Your task to perform on an android device: Go to CNN.com Image 0: 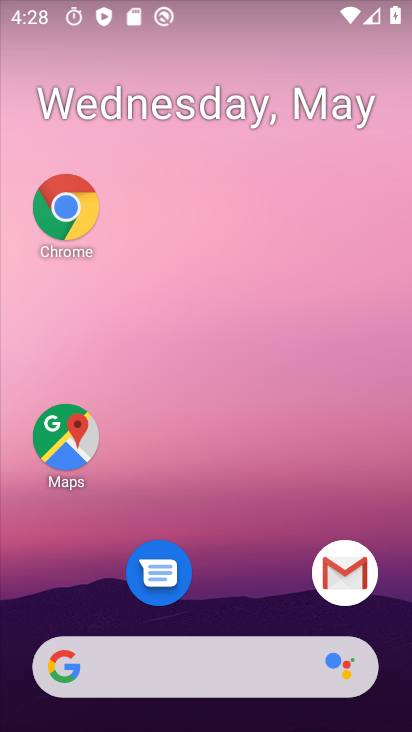
Step 0: drag from (214, 29) to (212, 162)
Your task to perform on an android device: Go to CNN.com Image 1: 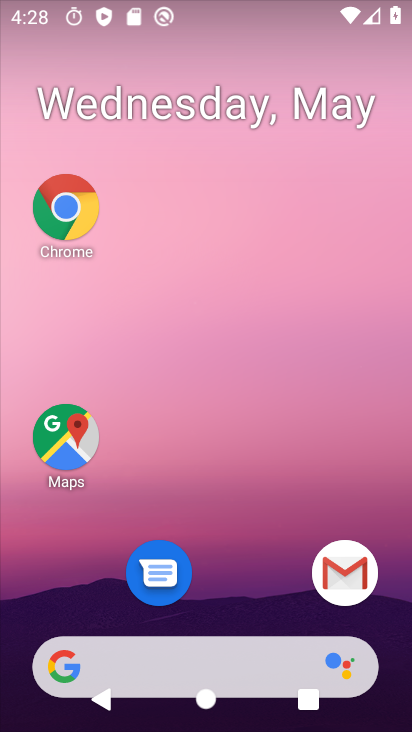
Step 1: click (167, 11)
Your task to perform on an android device: Go to CNN.com Image 2: 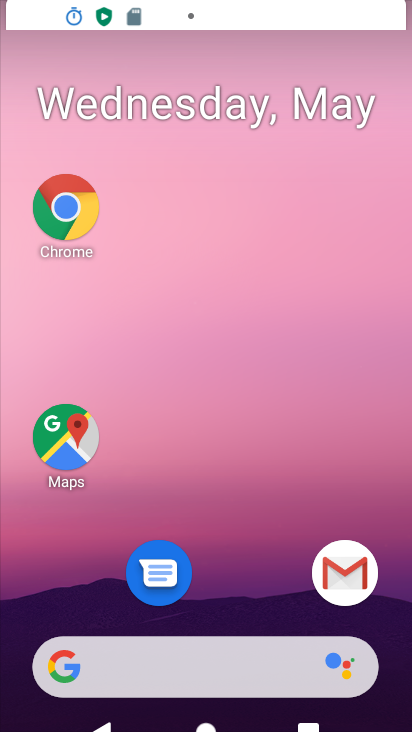
Step 2: click (232, 158)
Your task to perform on an android device: Go to CNN.com Image 3: 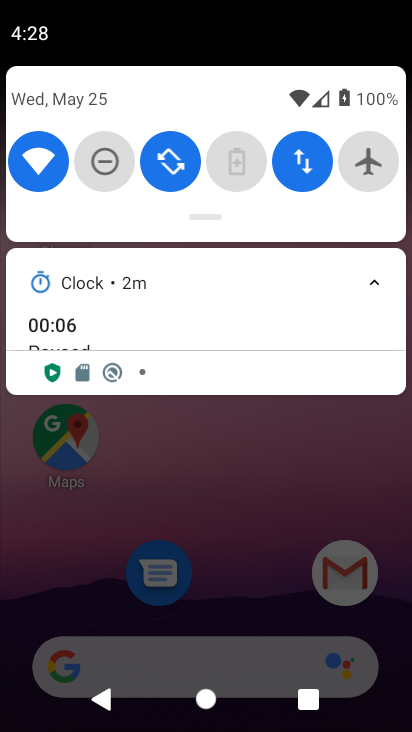
Step 3: drag from (295, 617) to (246, 144)
Your task to perform on an android device: Go to CNN.com Image 4: 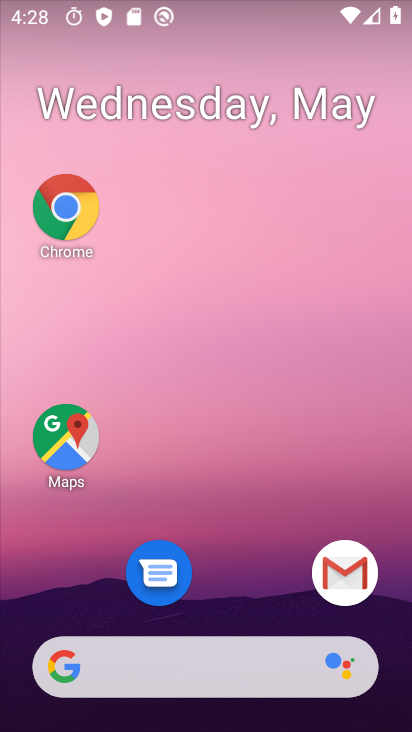
Step 4: drag from (346, 662) to (264, 126)
Your task to perform on an android device: Go to CNN.com Image 5: 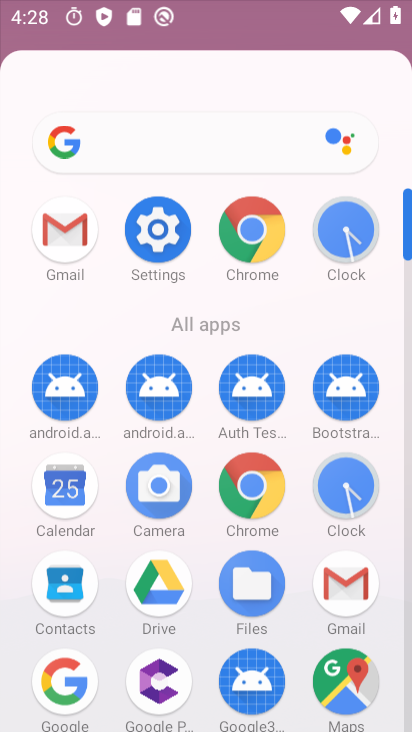
Step 5: drag from (287, 675) to (151, 187)
Your task to perform on an android device: Go to CNN.com Image 6: 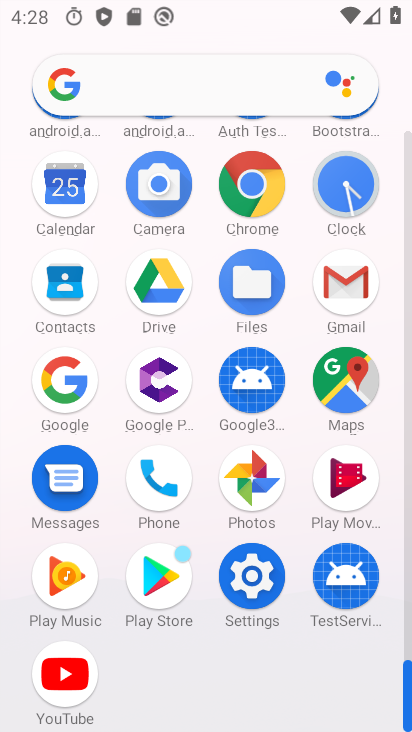
Step 6: click (257, 190)
Your task to perform on an android device: Go to CNN.com Image 7: 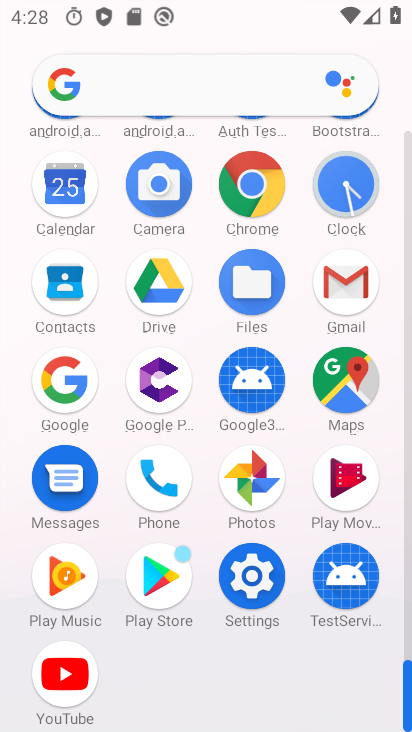
Step 7: click (257, 189)
Your task to perform on an android device: Go to CNN.com Image 8: 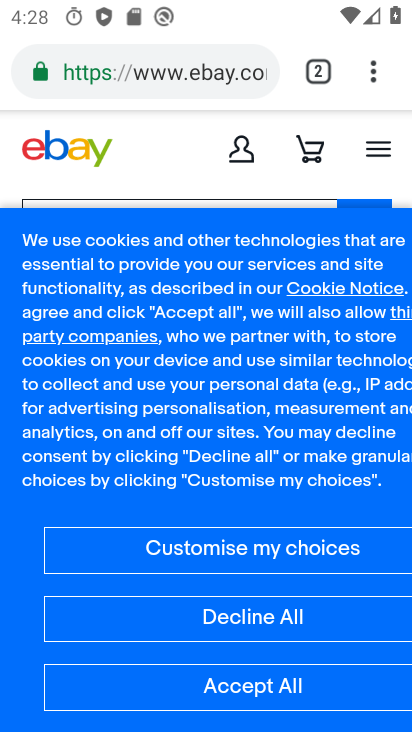
Step 8: click (366, 80)
Your task to perform on an android device: Go to CNN.com Image 9: 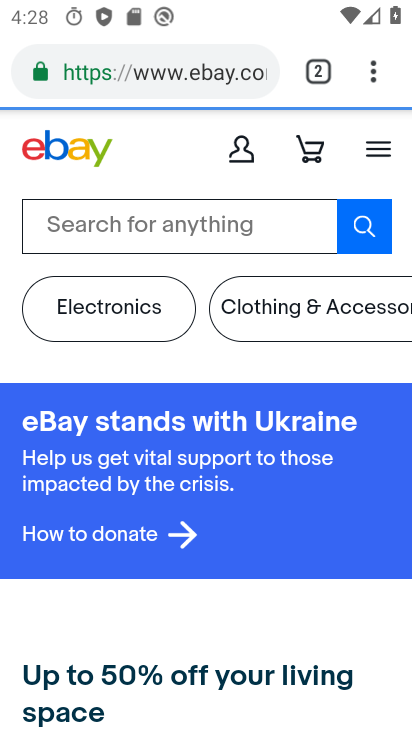
Step 9: drag from (369, 69) to (101, 144)
Your task to perform on an android device: Go to CNN.com Image 10: 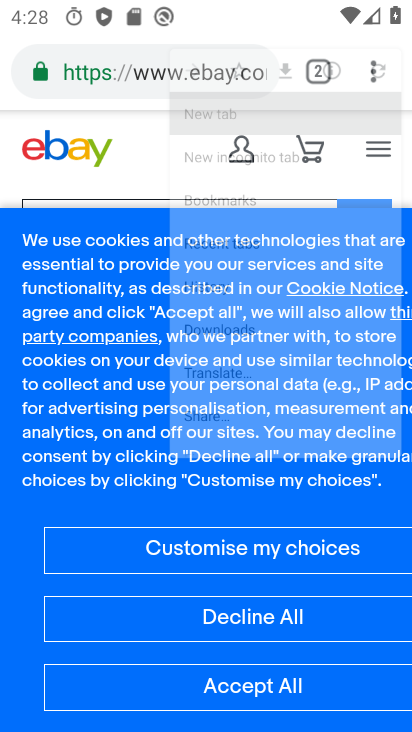
Step 10: click (101, 144)
Your task to perform on an android device: Go to CNN.com Image 11: 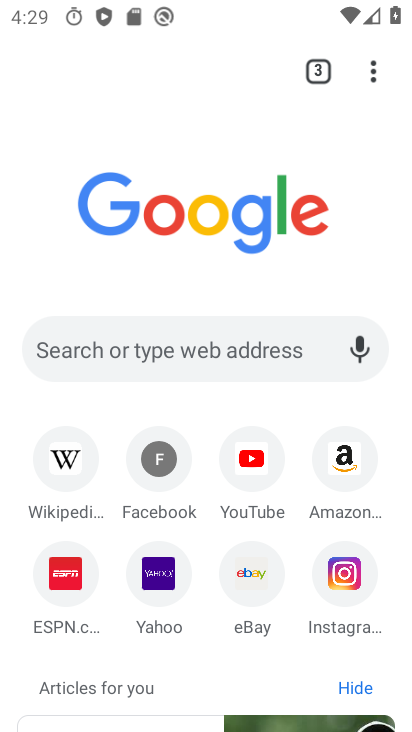
Step 11: click (42, 351)
Your task to perform on an android device: Go to CNN.com Image 12: 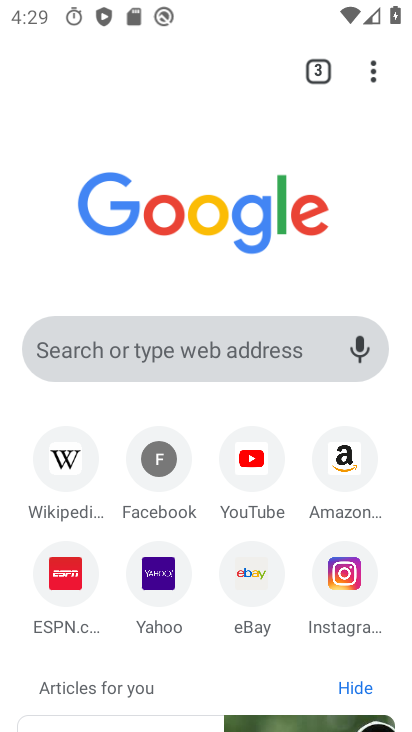
Step 12: click (53, 344)
Your task to perform on an android device: Go to CNN.com Image 13: 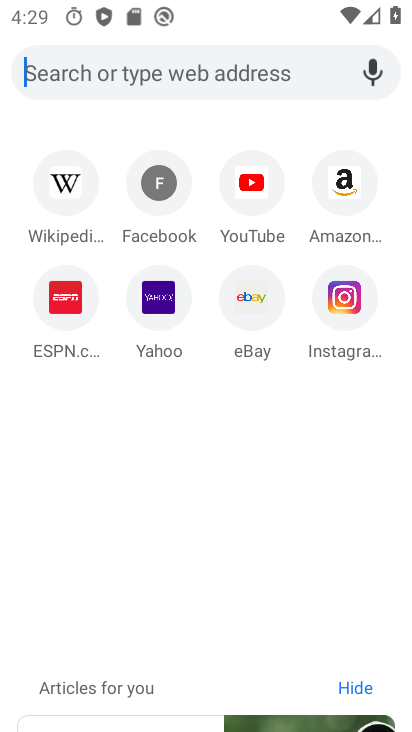
Step 13: click (53, 344)
Your task to perform on an android device: Go to CNN.com Image 14: 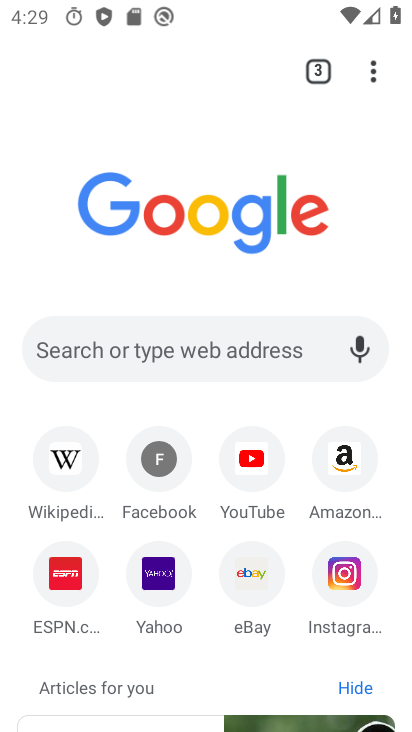
Step 14: click (113, 352)
Your task to perform on an android device: Go to CNN.com Image 15: 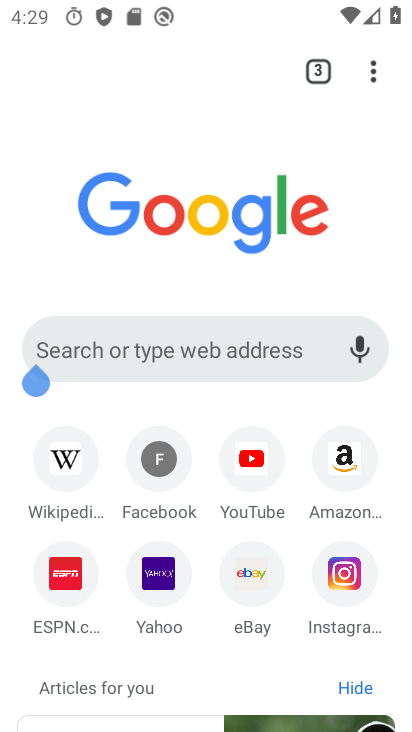
Step 15: click (88, 360)
Your task to perform on an android device: Go to CNN.com Image 16: 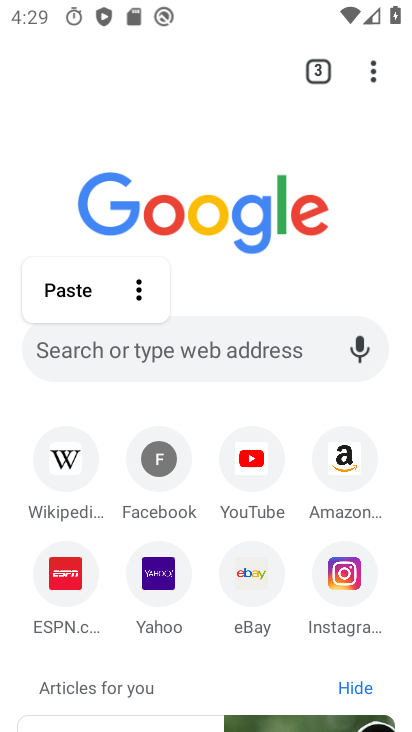
Step 16: click (68, 345)
Your task to perform on an android device: Go to CNN.com Image 17: 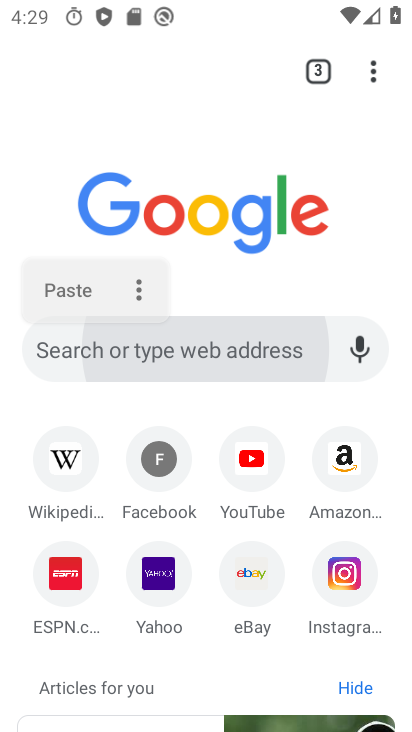
Step 17: click (63, 355)
Your task to perform on an android device: Go to CNN.com Image 18: 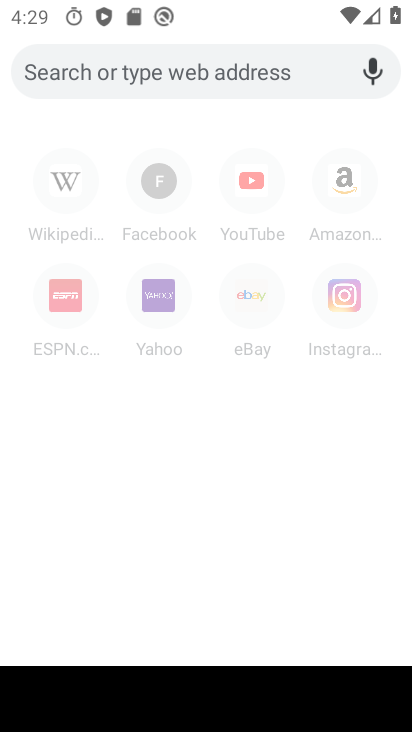
Step 18: type "cnn.com"
Your task to perform on an android device: Go to CNN.com Image 19: 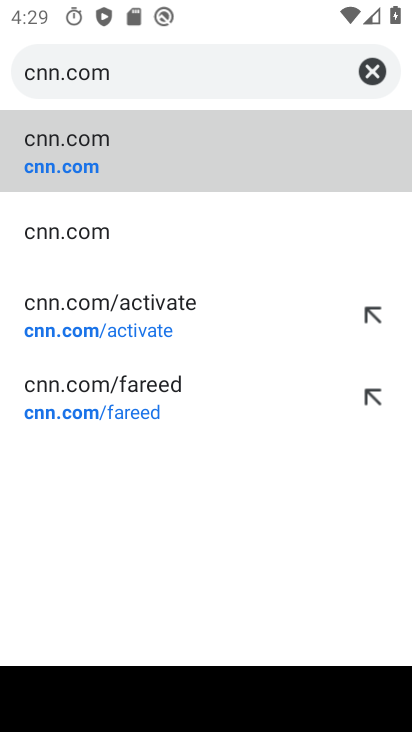
Step 19: click (47, 161)
Your task to perform on an android device: Go to CNN.com Image 20: 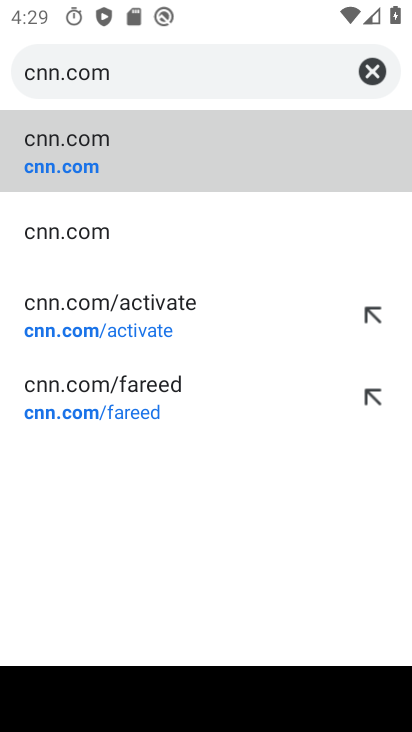
Step 20: click (47, 161)
Your task to perform on an android device: Go to CNN.com Image 21: 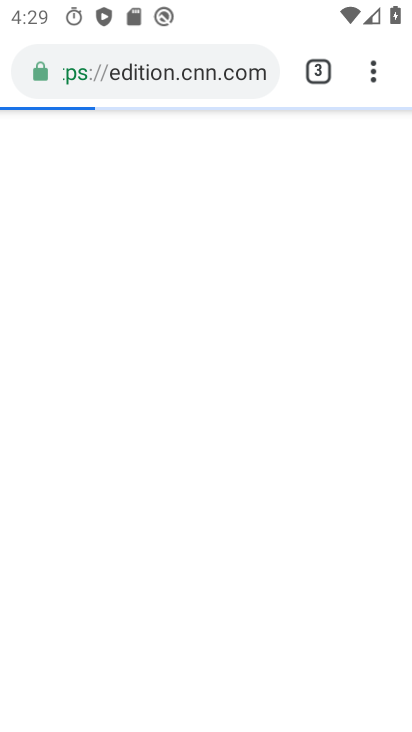
Step 21: click (47, 161)
Your task to perform on an android device: Go to CNN.com Image 22: 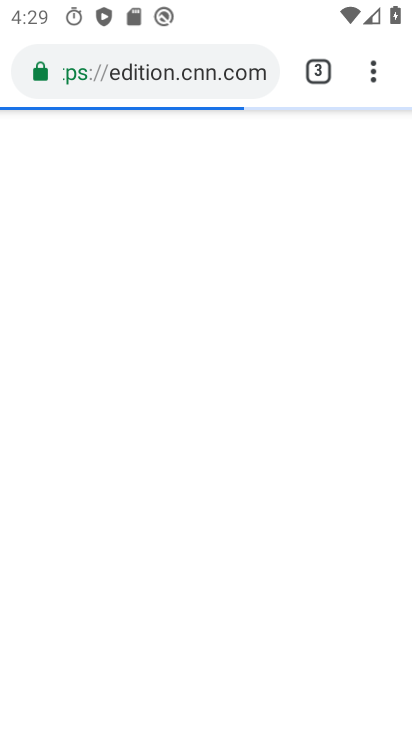
Step 22: click (47, 161)
Your task to perform on an android device: Go to CNN.com Image 23: 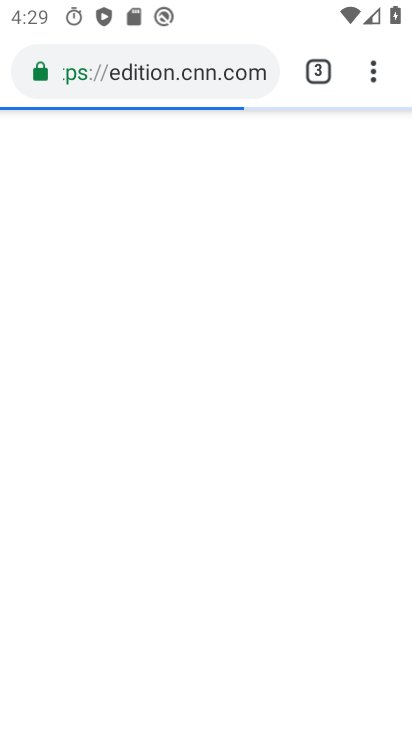
Step 23: click (47, 161)
Your task to perform on an android device: Go to CNN.com Image 24: 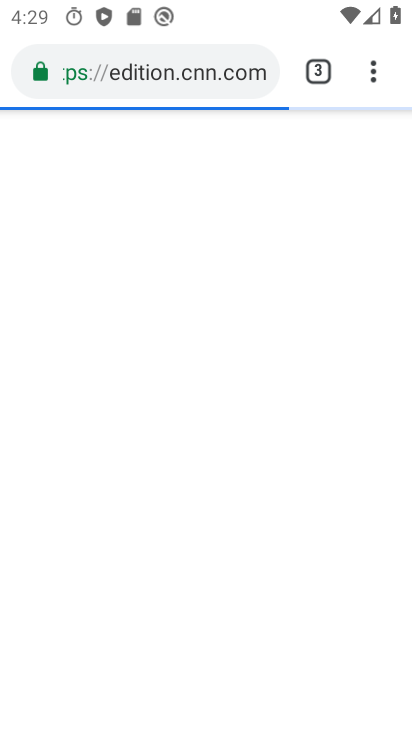
Step 24: task complete